Your task to perform on an android device: What's the weather going to be tomorrow? Image 0: 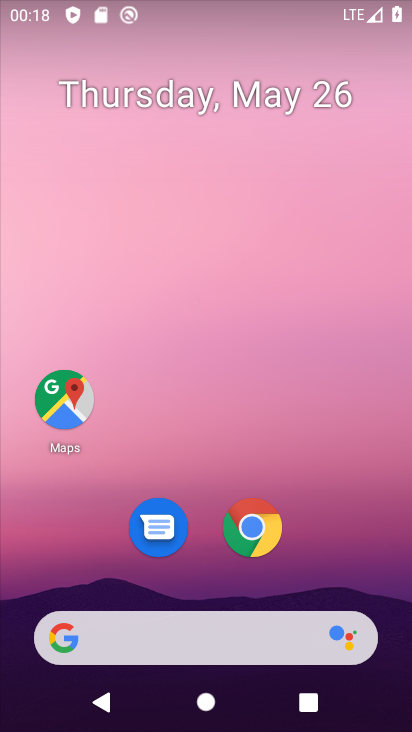
Step 0: click (217, 636)
Your task to perform on an android device: What's the weather going to be tomorrow? Image 1: 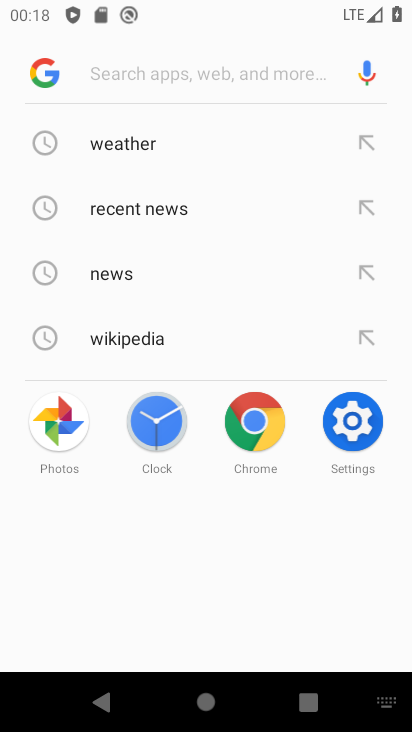
Step 1: click (202, 128)
Your task to perform on an android device: What's the weather going to be tomorrow? Image 2: 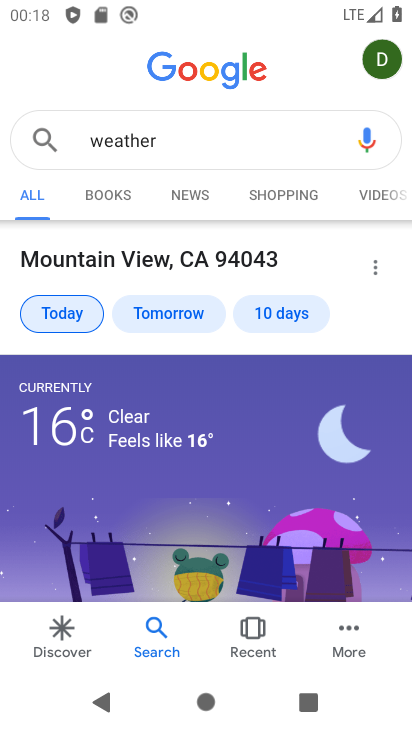
Step 2: click (168, 318)
Your task to perform on an android device: What's the weather going to be tomorrow? Image 3: 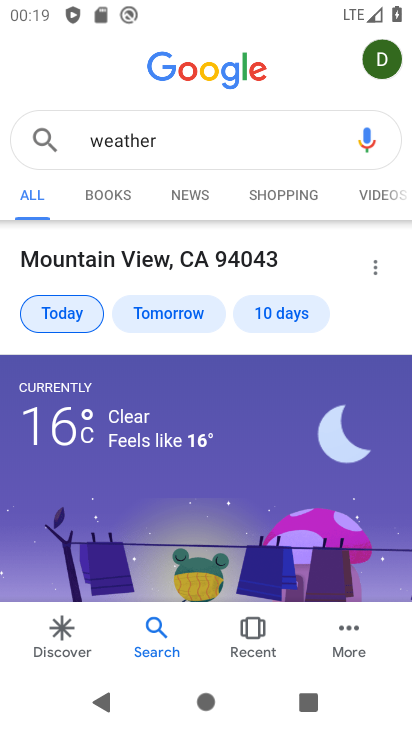
Step 3: click (179, 303)
Your task to perform on an android device: What's the weather going to be tomorrow? Image 4: 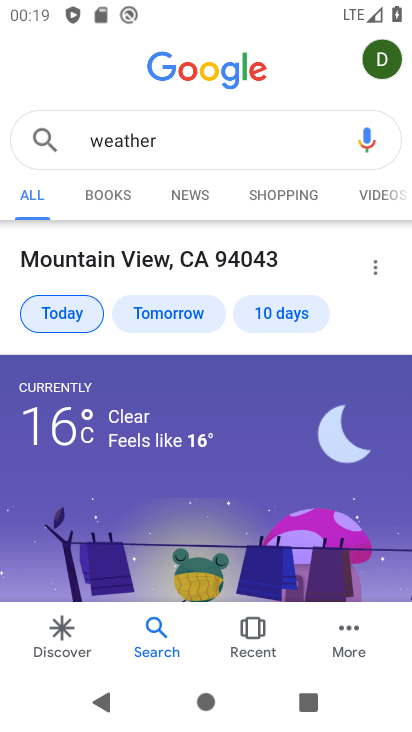
Step 4: click (150, 323)
Your task to perform on an android device: What's the weather going to be tomorrow? Image 5: 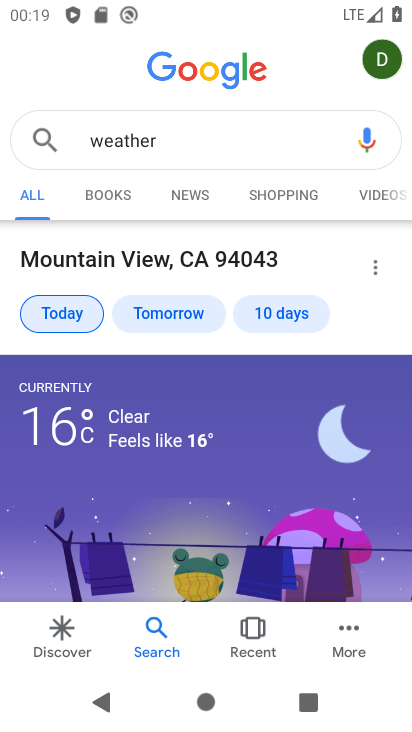
Step 5: click (150, 323)
Your task to perform on an android device: What's the weather going to be tomorrow? Image 6: 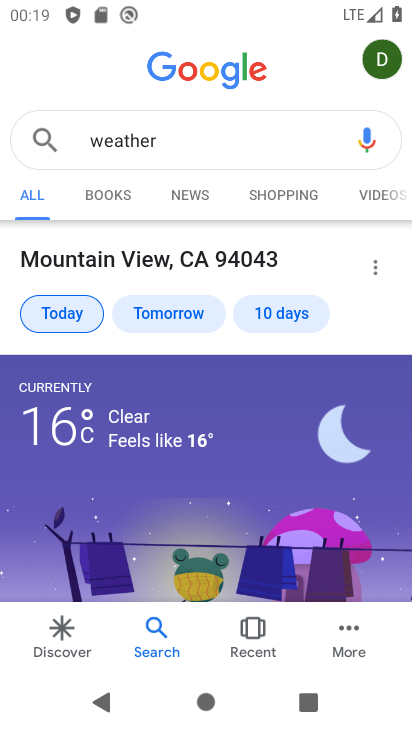
Step 6: click (159, 323)
Your task to perform on an android device: What's the weather going to be tomorrow? Image 7: 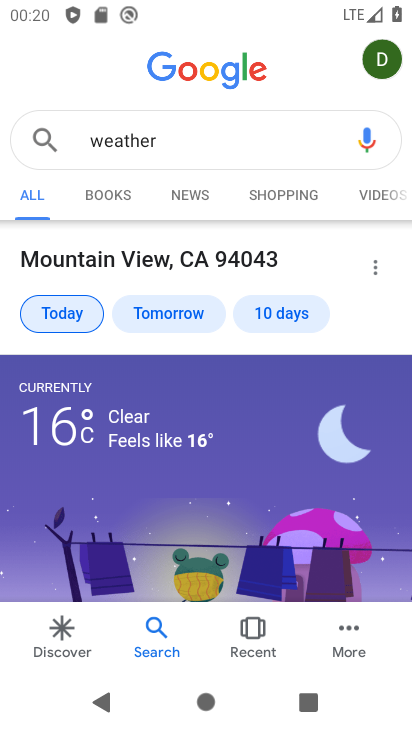
Step 7: click (167, 331)
Your task to perform on an android device: What's the weather going to be tomorrow? Image 8: 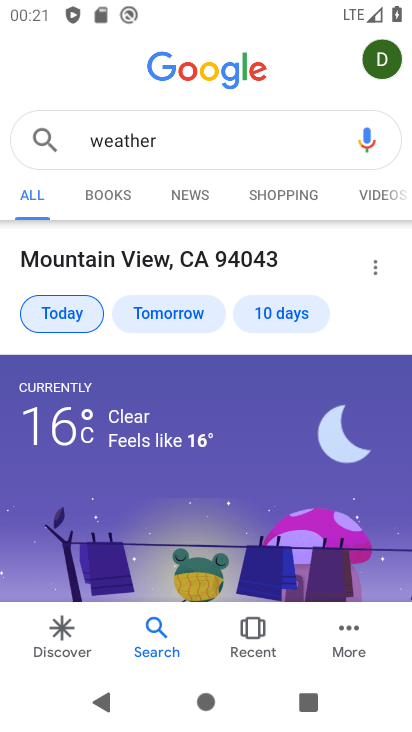
Step 8: click (184, 320)
Your task to perform on an android device: What's the weather going to be tomorrow? Image 9: 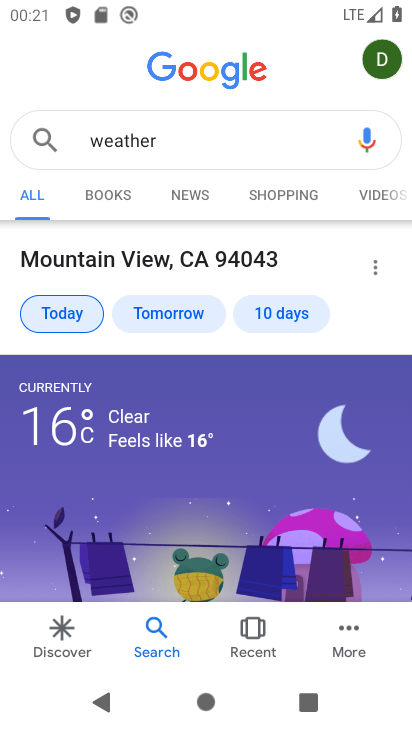
Step 9: click (184, 320)
Your task to perform on an android device: What's the weather going to be tomorrow? Image 10: 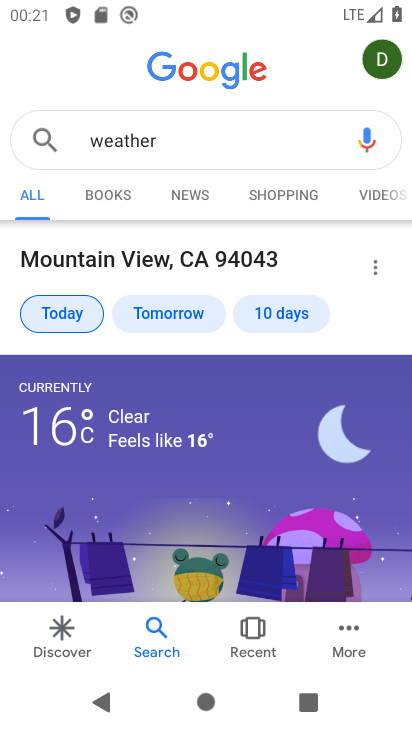
Step 10: click (160, 515)
Your task to perform on an android device: What's the weather going to be tomorrow? Image 11: 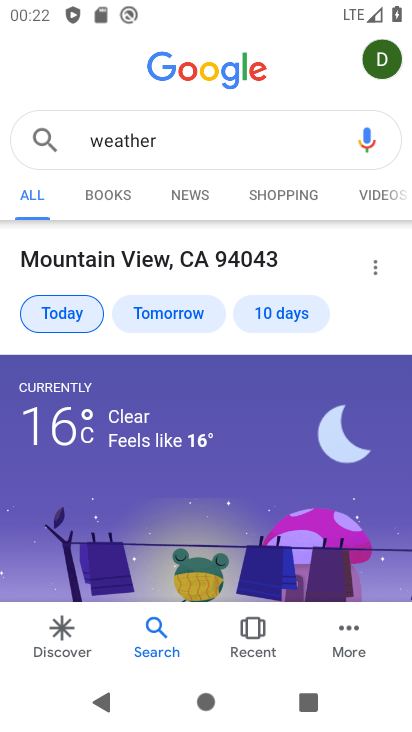
Step 11: drag from (163, 526) to (194, 95)
Your task to perform on an android device: What's the weather going to be tomorrow? Image 12: 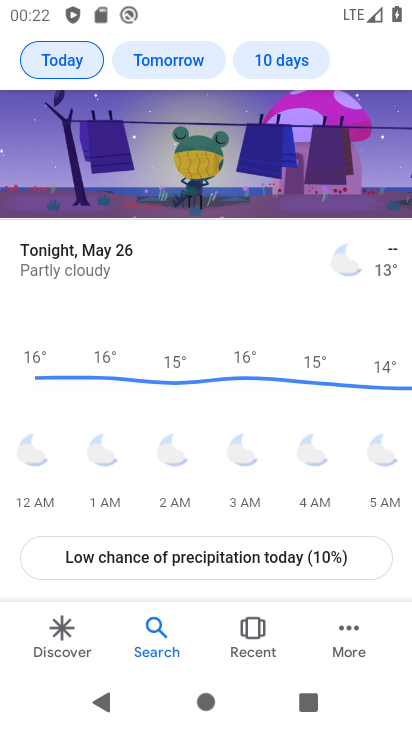
Step 12: drag from (149, 502) to (190, 166)
Your task to perform on an android device: What's the weather going to be tomorrow? Image 13: 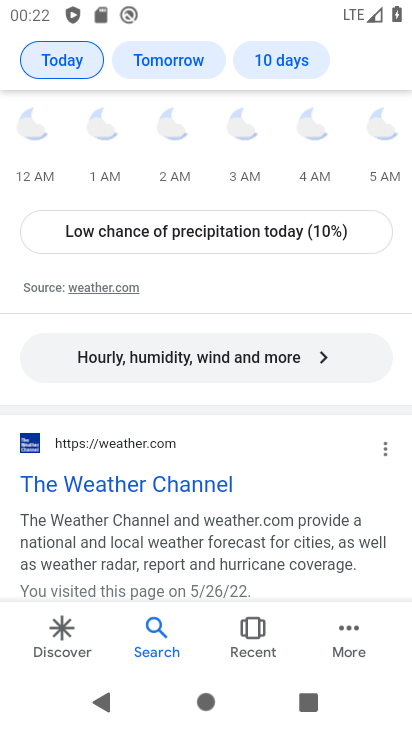
Step 13: click (108, 289)
Your task to perform on an android device: What's the weather going to be tomorrow? Image 14: 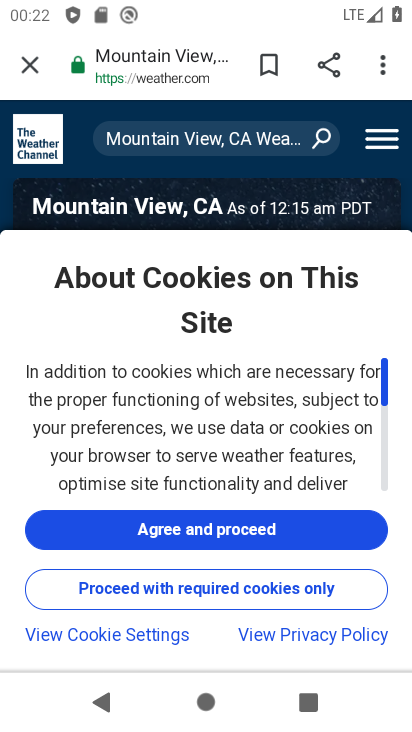
Step 14: click (170, 519)
Your task to perform on an android device: What's the weather going to be tomorrow? Image 15: 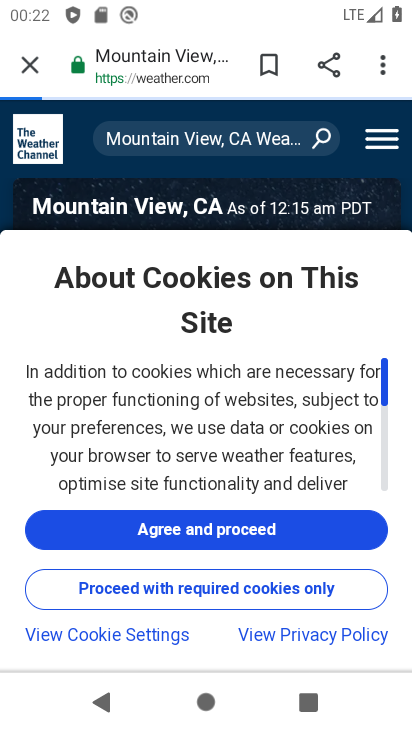
Step 15: task complete